Your task to perform on an android device: What's the weather today? Image 0: 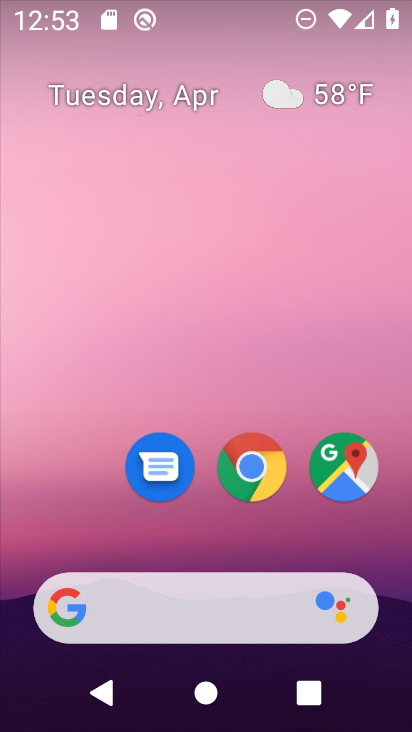
Step 0: click (157, 603)
Your task to perform on an android device: What's the weather today? Image 1: 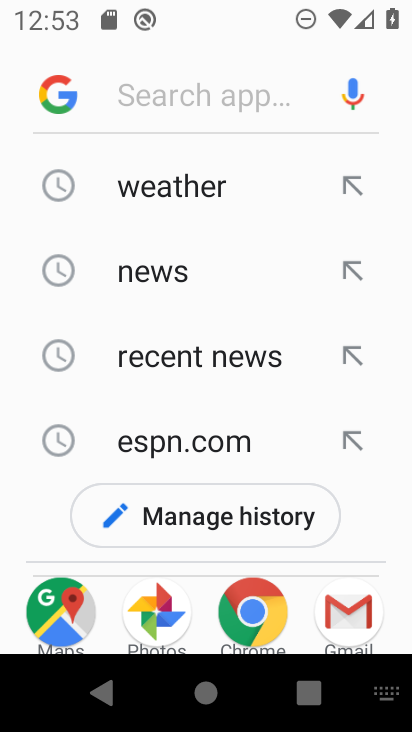
Step 1: click (70, 88)
Your task to perform on an android device: What's the weather today? Image 2: 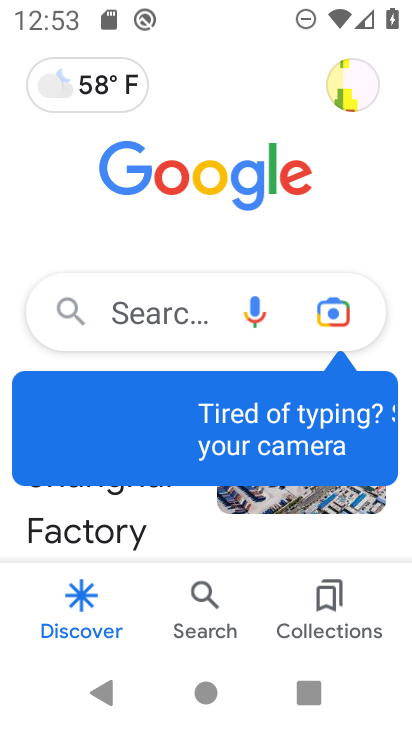
Step 2: click (65, 96)
Your task to perform on an android device: What's the weather today? Image 3: 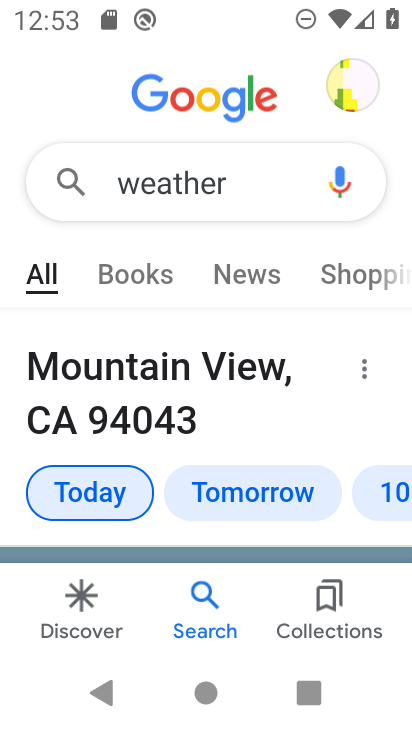
Step 3: task complete